Your task to perform on an android device: Open privacy settings Image 0: 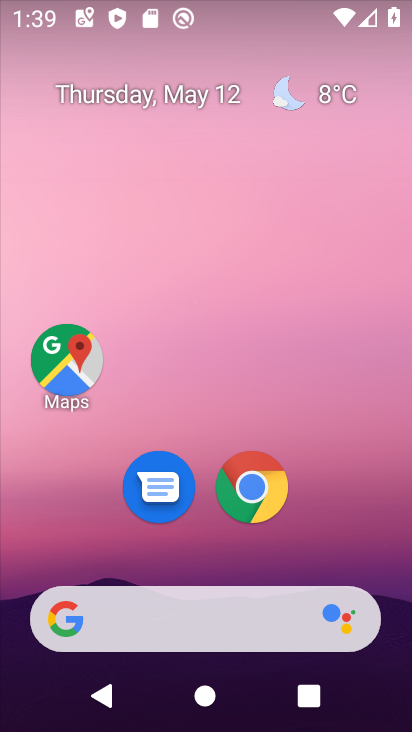
Step 0: drag from (310, 562) to (296, 8)
Your task to perform on an android device: Open privacy settings Image 1: 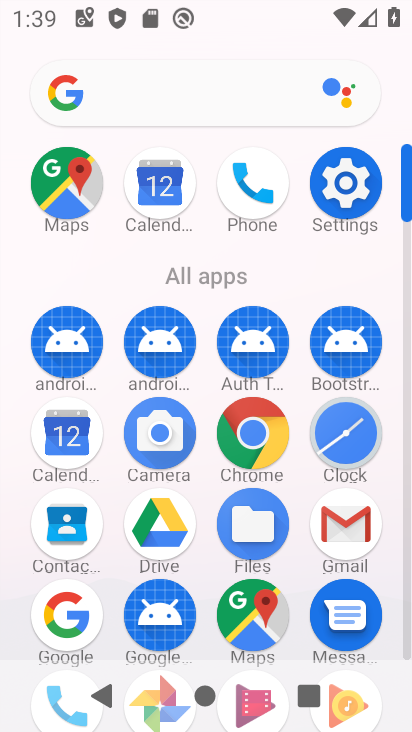
Step 1: click (346, 183)
Your task to perform on an android device: Open privacy settings Image 2: 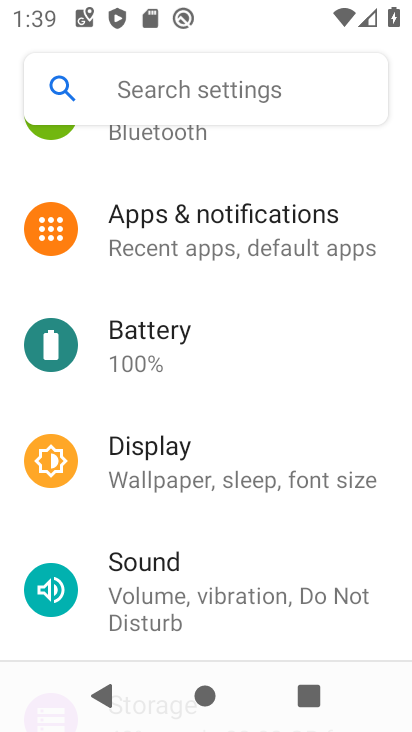
Step 2: drag from (178, 516) to (194, 296)
Your task to perform on an android device: Open privacy settings Image 3: 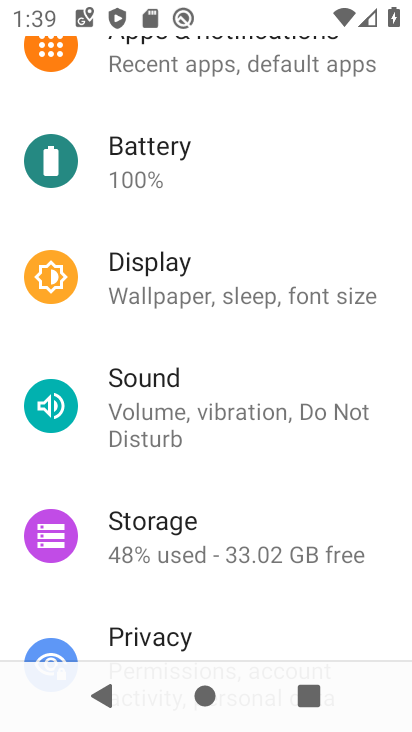
Step 3: drag from (146, 618) to (209, 335)
Your task to perform on an android device: Open privacy settings Image 4: 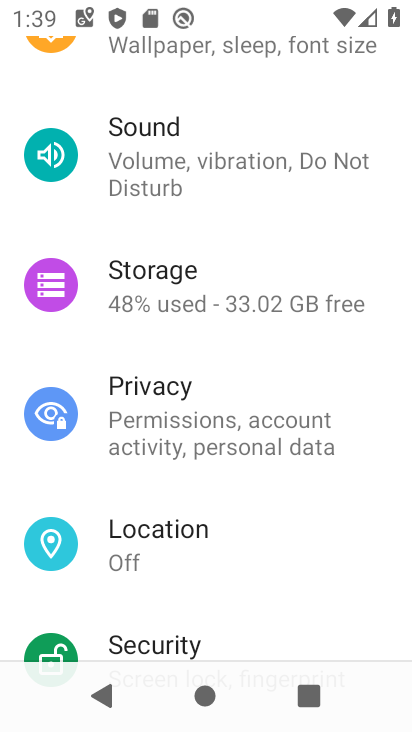
Step 4: click (169, 412)
Your task to perform on an android device: Open privacy settings Image 5: 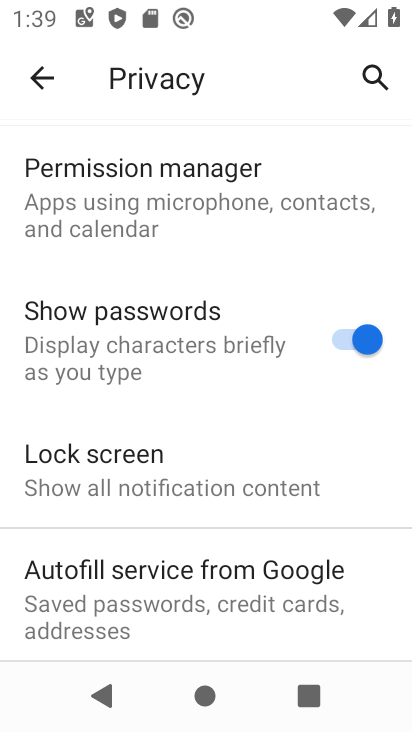
Step 5: task complete